Your task to perform on an android device: Open internet settings Image 0: 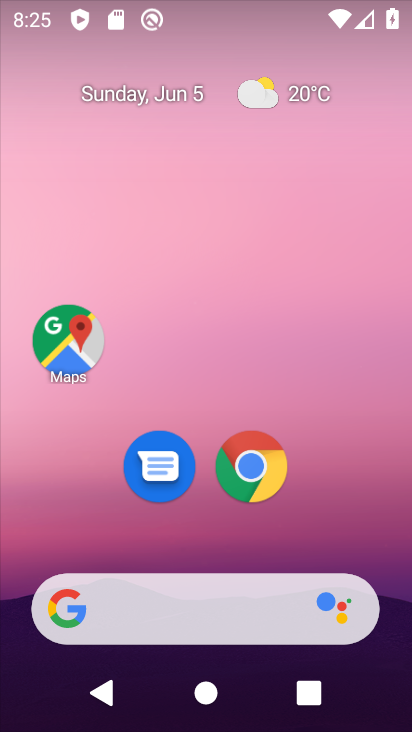
Step 0: drag from (221, 543) to (203, 1)
Your task to perform on an android device: Open internet settings Image 1: 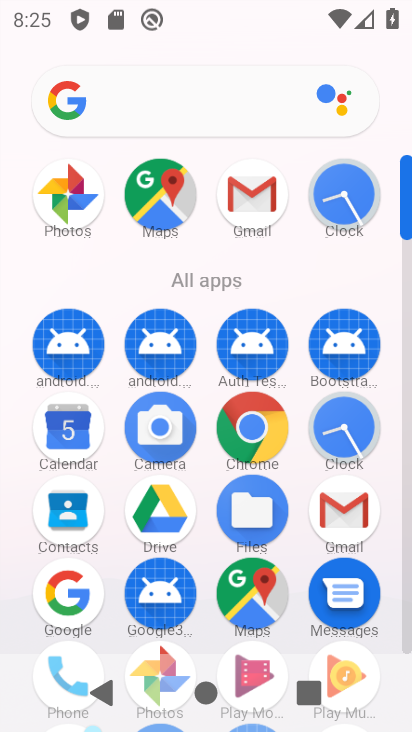
Step 1: drag from (205, 584) to (226, 393)
Your task to perform on an android device: Open internet settings Image 2: 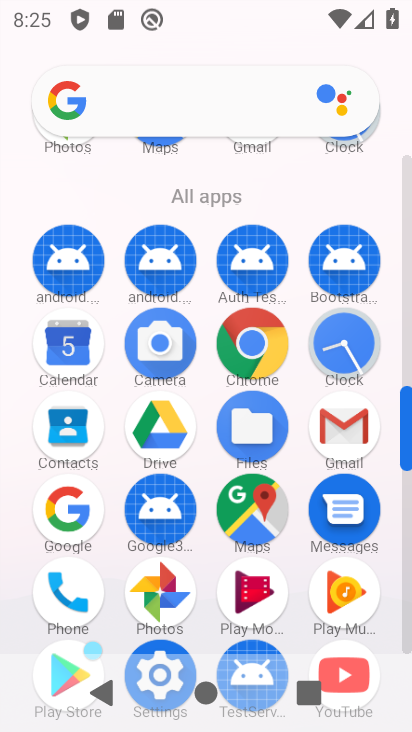
Step 2: drag from (225, 630) to (235, 139)
Your task to perform on an android device: Open internet settings Image 3: 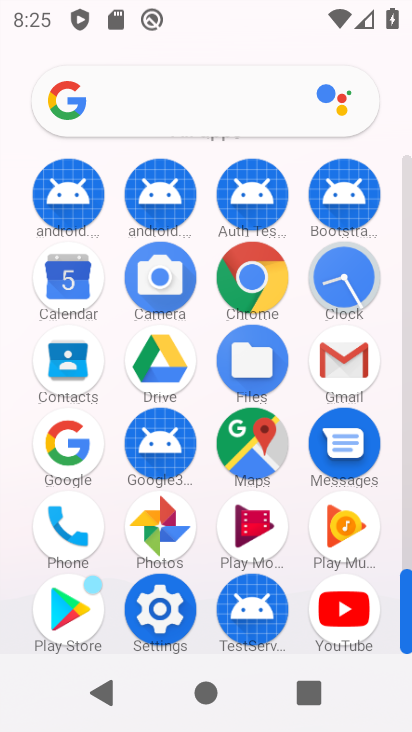
Step 3: click (151, 620)
Your task to perform on an android device: Open internet settings Image 4: 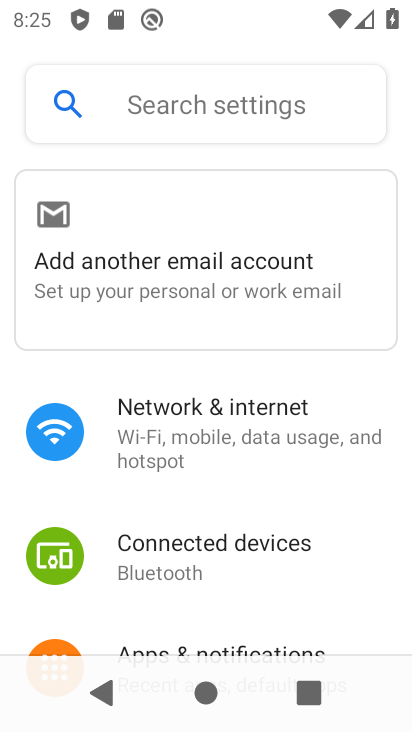
Step 4: task complete